Your task to perform on an android device: toggle translation in the chrome app Image 0: 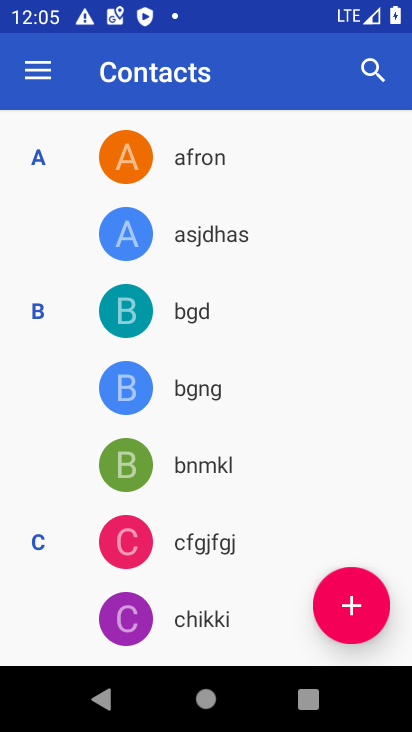
Step 0: press home button
Your task to perform on an android device: toggle translation in the chrome app Image 1: 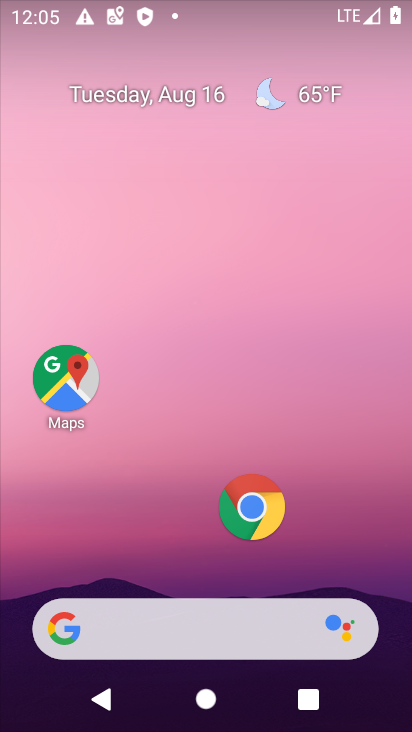
Step 1: click (255, 509)
Your task to perform on an android device: toggle translation in the chrome app Image 2: 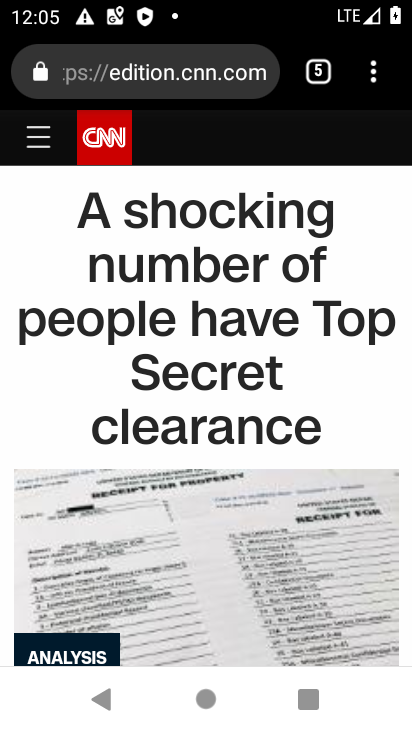
Step 2: press home button
Your task to perform on an android device: toggle translation in the chrome app Image 3: 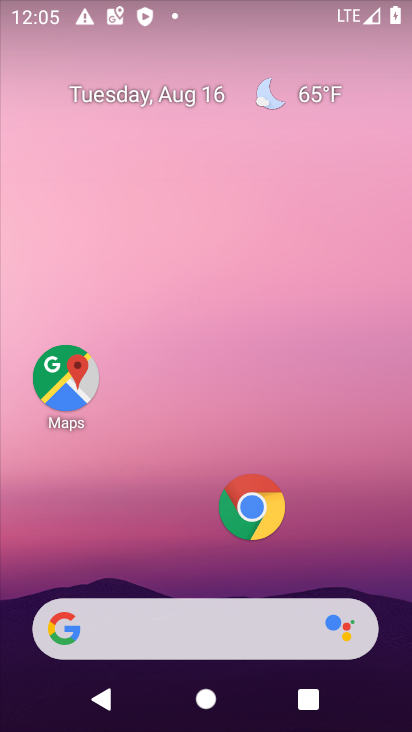
Step 3: click (253, 509)
Your task to perform on an android device: toggle translation in the chrome app Image 4: 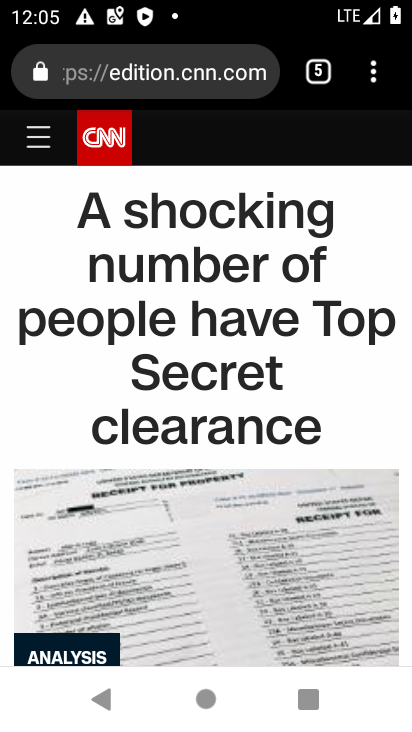
Step 4: click (369, 66)
Your task to perform on an android device: toggle translation in the chrome app Image 5: 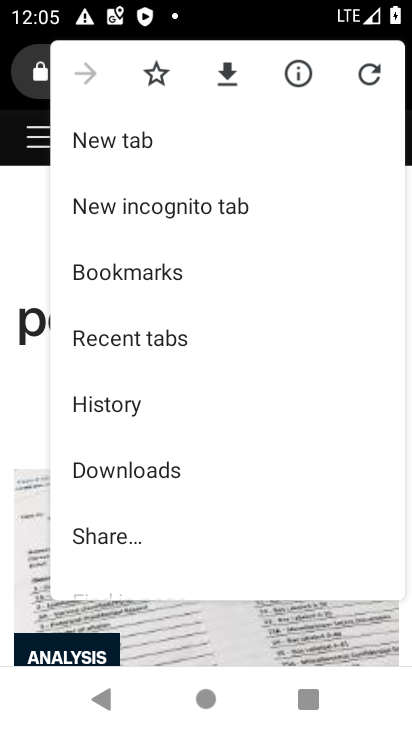
Step 5: drag from (238, 500) to (221, 213)
Your task to perform on an android device: toggle translation in the chrome app Image 6: 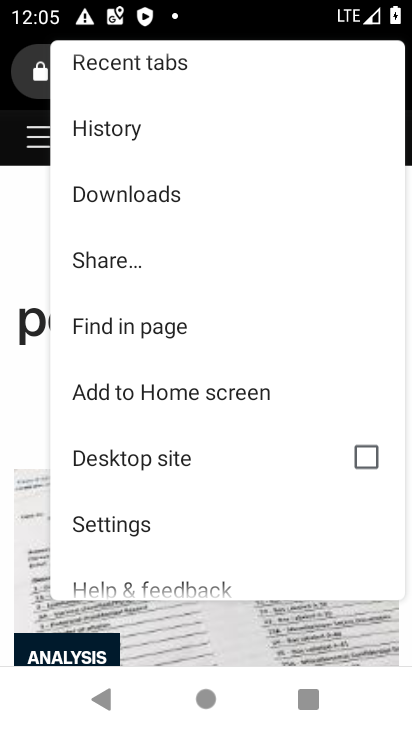
Step 6: click (120, 513)
Your task to perform on an android device: toggle translation in the chrome app Image 7: 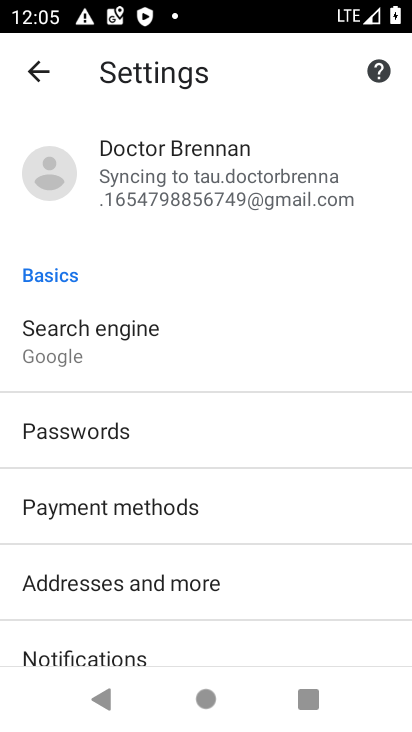
Step 7: drag from (182, 625) to (182, 366)
Your task to perform on an android device: toggle translation in the chrome app Image 8: 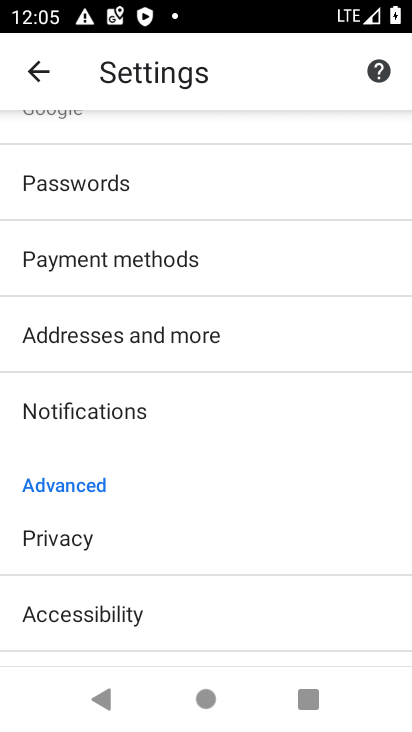
Step 8: drag from (164, 578) to (130, 260)
Your task to perform on an android device: toggle translation in the chrome app Image 9: 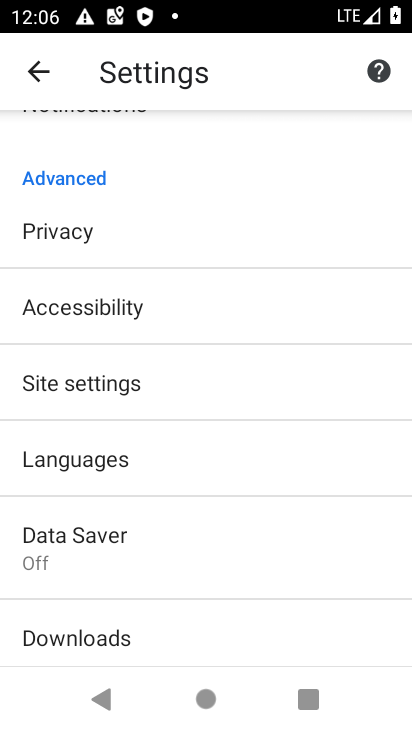
Step 9: click (97, 455)
Your task to perform on an android device: toggle translation in the chrome app Image 10: 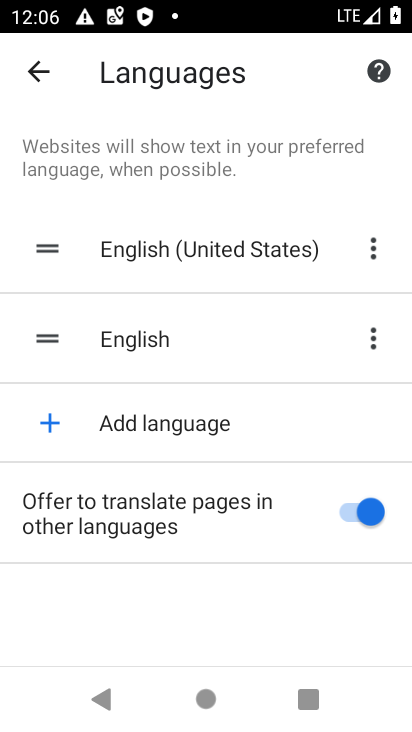
Step 10: click (369, 514)
Your task to perform on an android device: toggle translation in the chrome app Image 11: 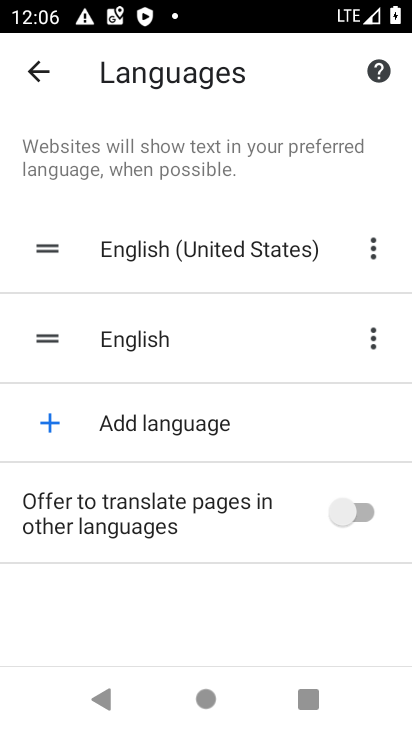
Step 11: task complete